Your task to perform on an android device: Open notification settings Image 0: 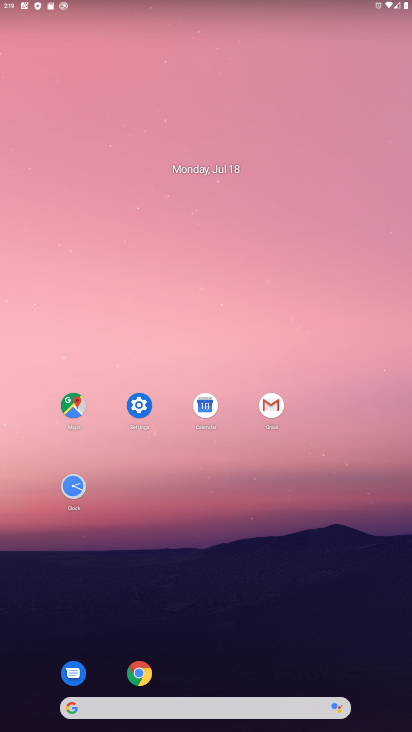
Step 0: click (146, 406)
Your task to perform on an android device: Open notification settings Image 1: 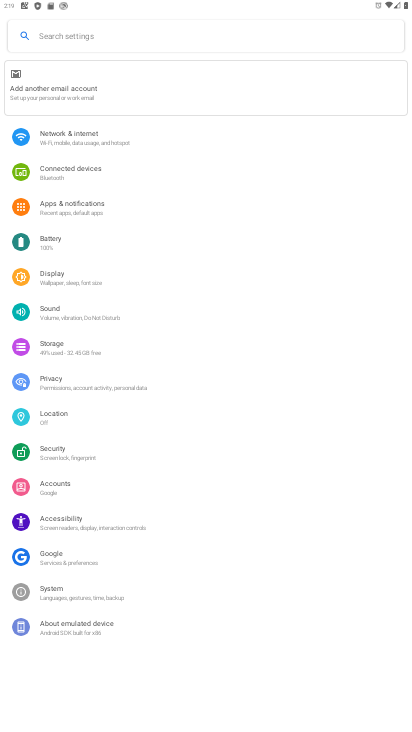
Step 1: click (68, 201)
Your task to perform on an android device: Open notification settings Image 2: 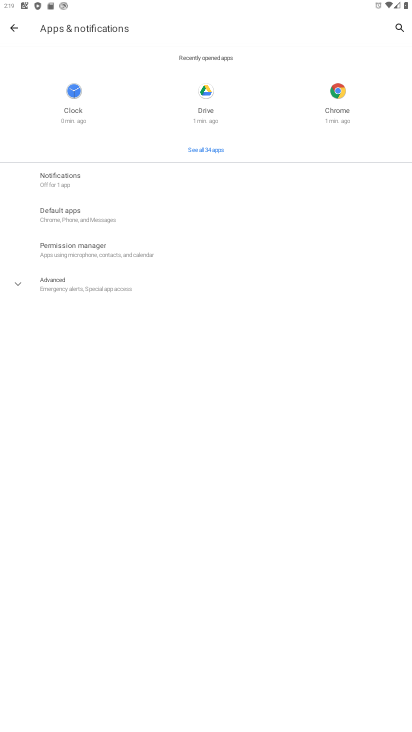
Step 2: click (59, 177)
Your task to perform on an android device: Open notification settings Image 3: 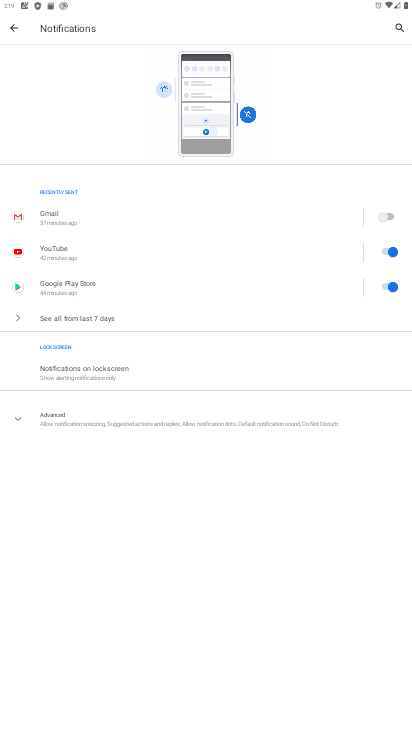
Step 3: click (29, 414)
Your task to perform on an android device: Open notification settings Image 4: 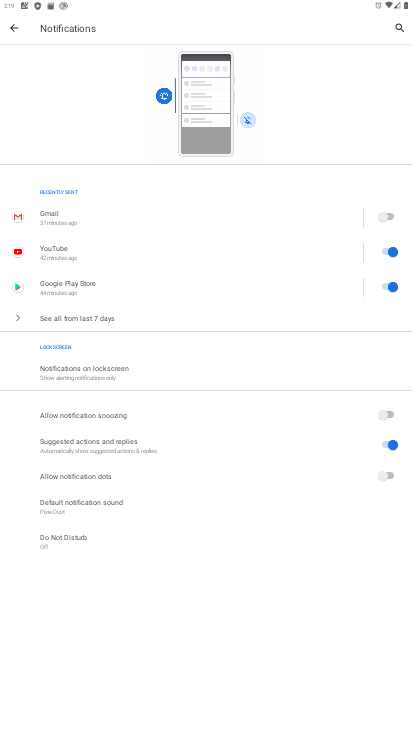
Step 4: task complete